Your task to perform on an android device: Go to eBay Image 0: 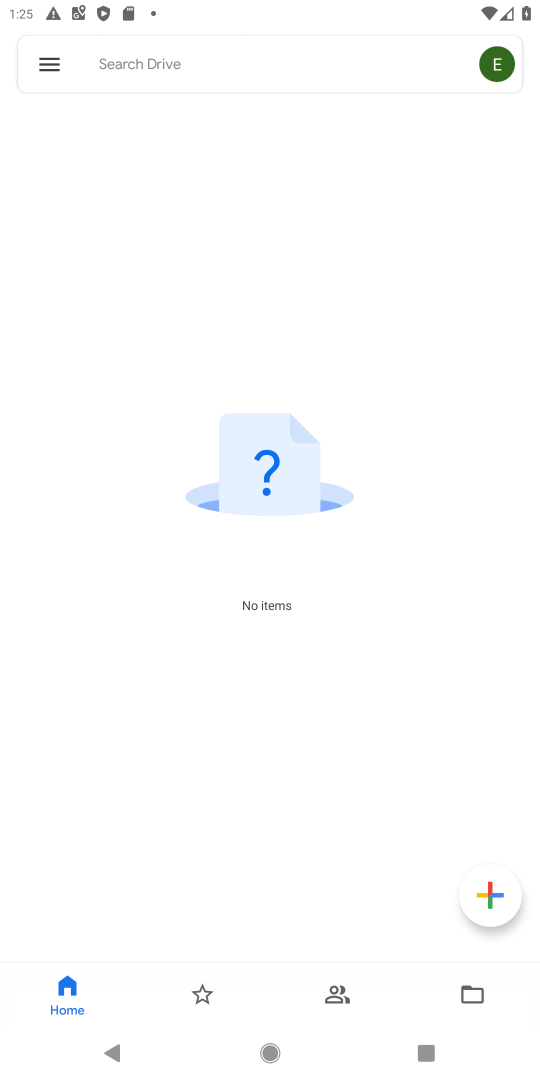
Step 0: press home button
Your task to perform on an android device: Go to eBay Image 1: 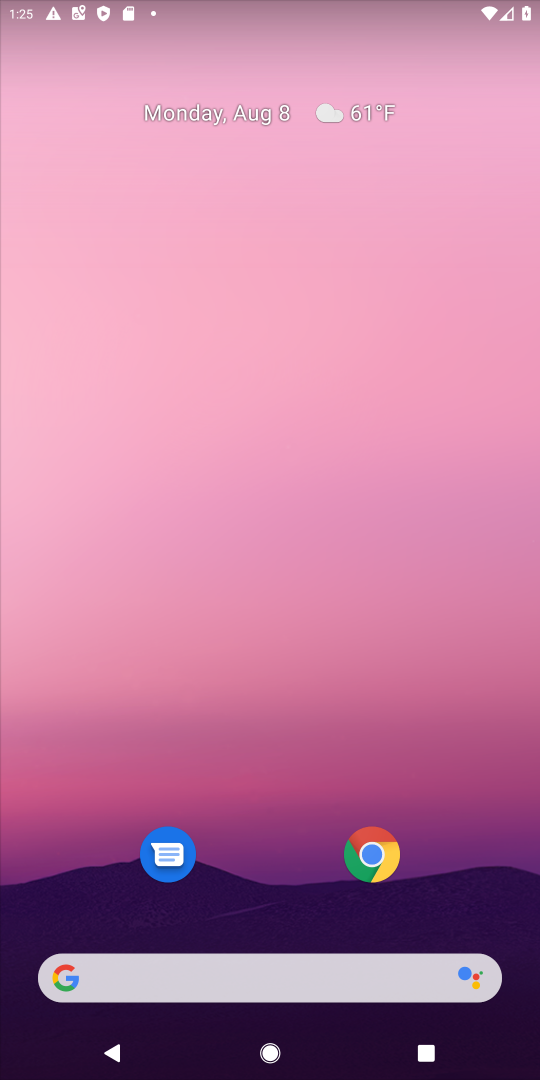
Step 1: click (141, 973)
Your task to perform on an android device: Go to eBay Image 2: 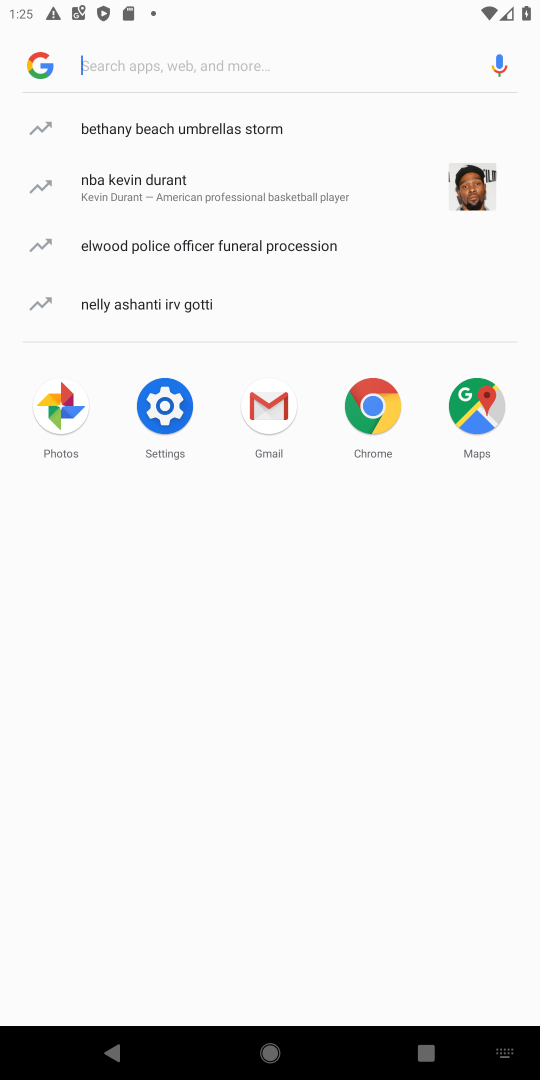
Step 2: type "eBay"
Your task to perform on an android device: Go to eBay Image 3: 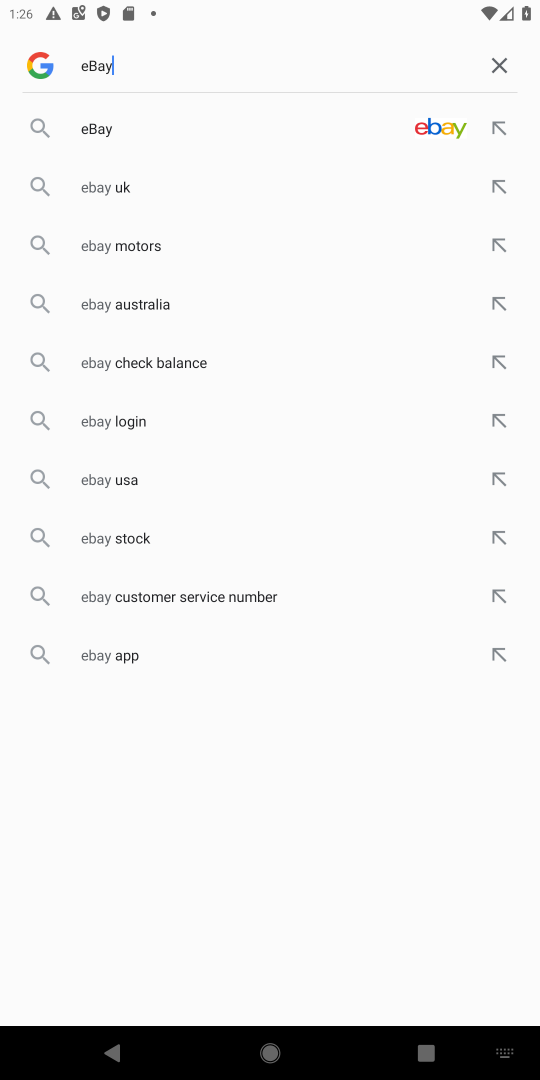
Step 3: click (102, 130)
Your task to perform on an android device: Go to eBay Image 4: 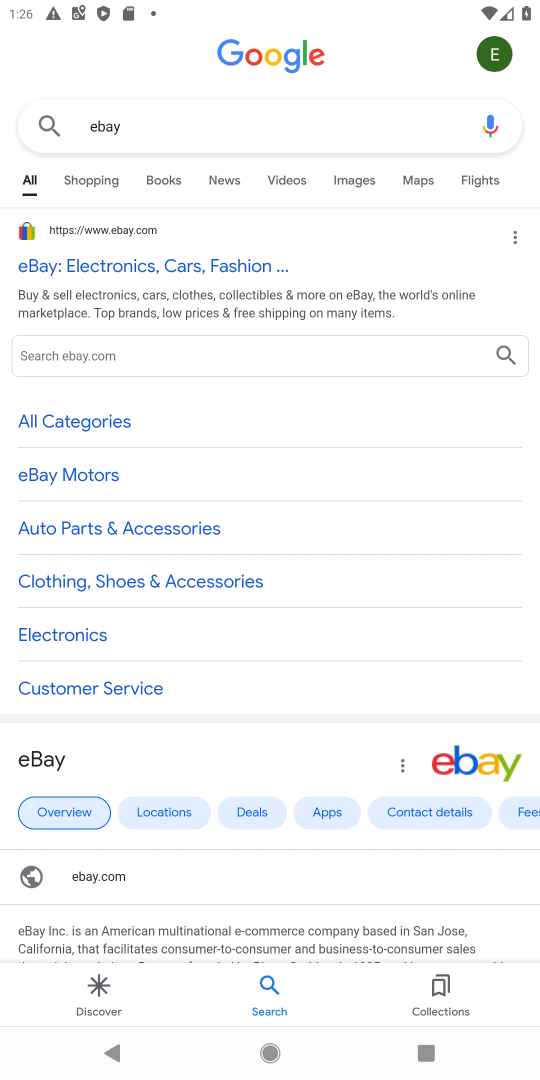
Step 4: task complete